Your task to perform on an android device: turn on the 24-hour format for clock Image 0: 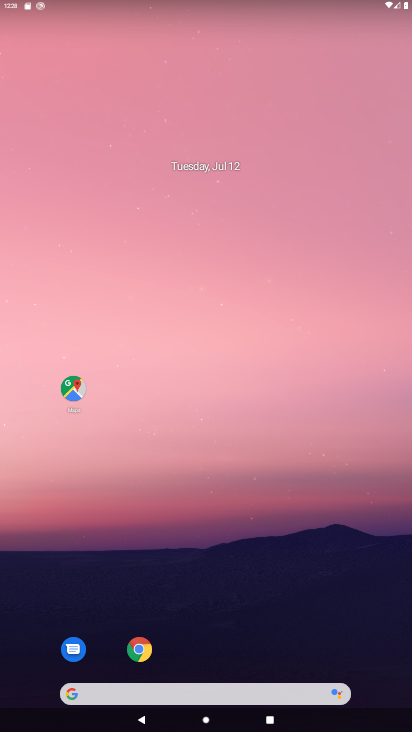
Step 0: drag from (354, 645) to (261, 149)
Your task to perform on an android device: turn on the 24-hour format for clock Image 1: 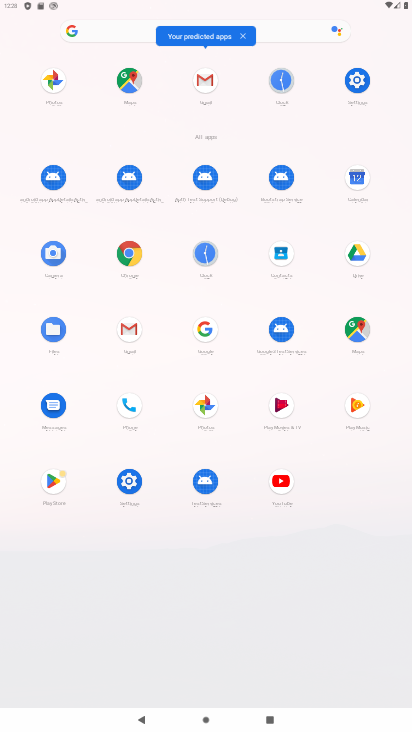
Step 1: click (285, 70)
Your task to perform on an android device: turn on the 24-hour format for clock Image 2: 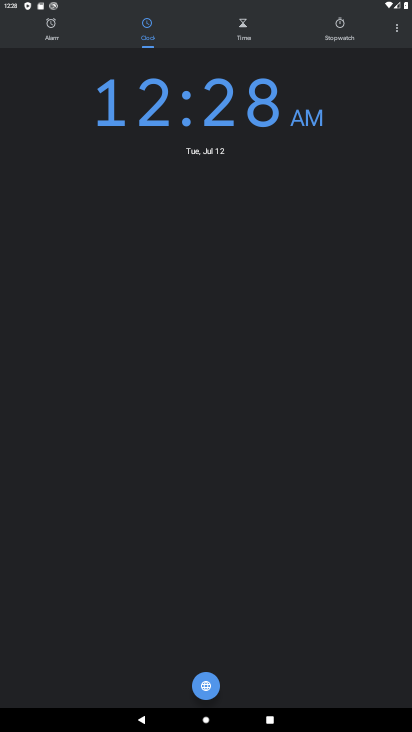
Step 2: click (396, 32)
Your task to perform on an android device: turn on the 24-hour format for clock Image 3: 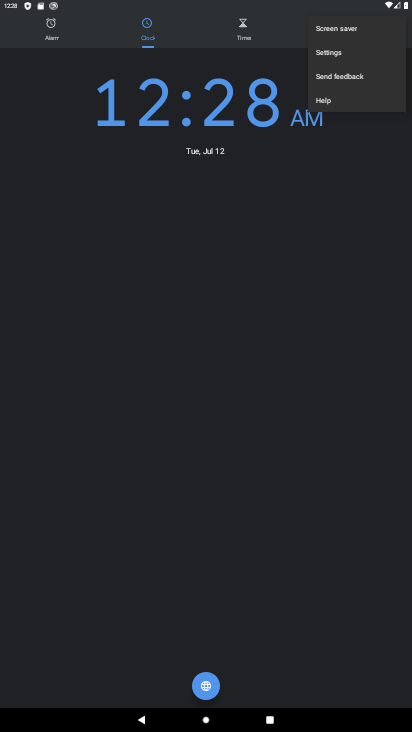
Step 3: click (348, 52)
Your task to perform on an android device: turn on the 24-hour format for clock Image 4: 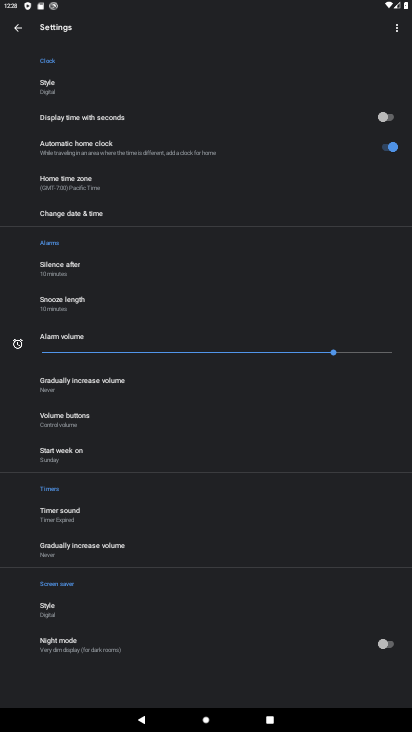
Step 4: click (199, 218)
Your task to perform on an android device: turn on the 24-hour format for clock Image 5: 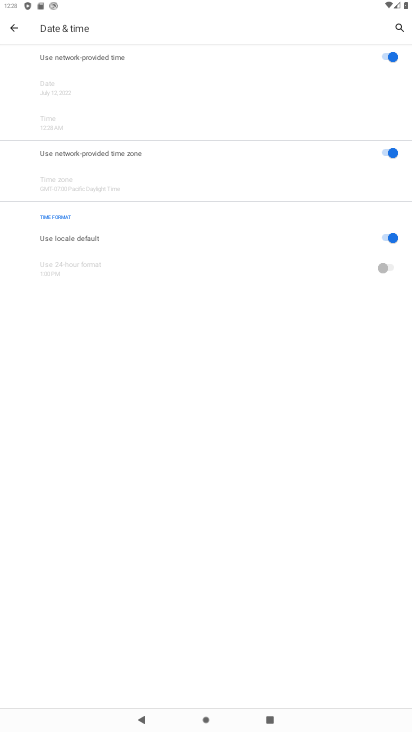
Step 5: click (391, 238)
Your task to perform on an android device: turn on the 24-hour format for clock Image 6: 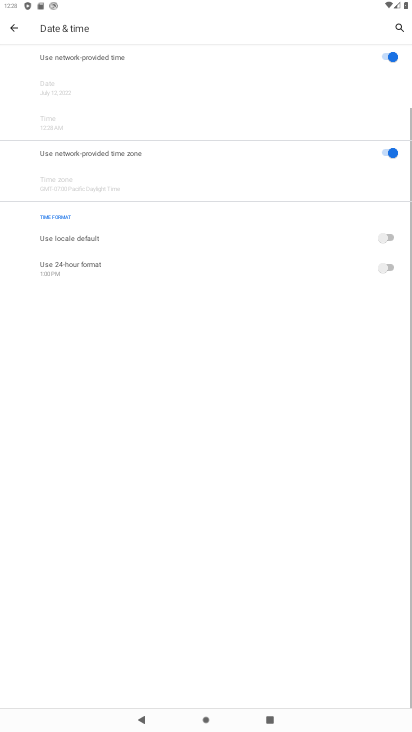
Step 6: click (390, 271)
Your task to perform on an android device: turn on the 24-hour format for clock Image 7: 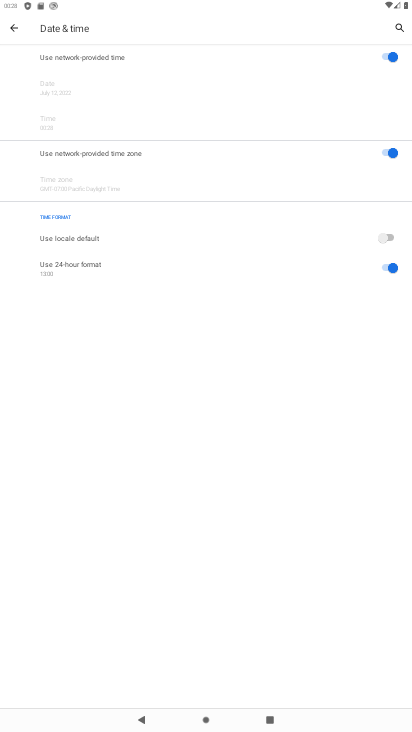
Step 7: task complete